Your task to perform on an android device: Search for pizza restaurants on Maps Image 0: 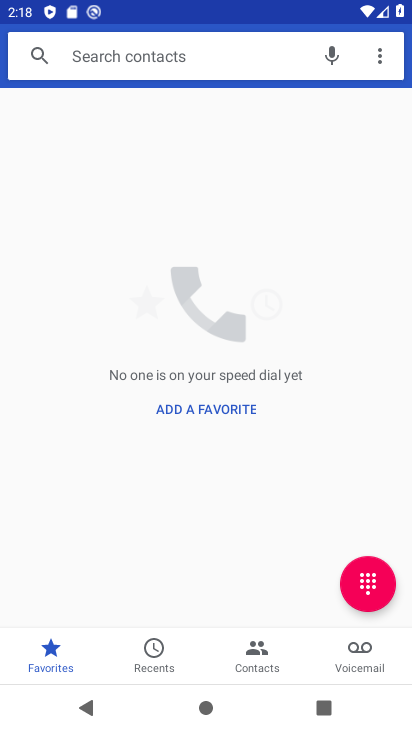
Step 0: press home button
Your task to perform on an android device: Search for pizza restaurants on Maps Image 1: 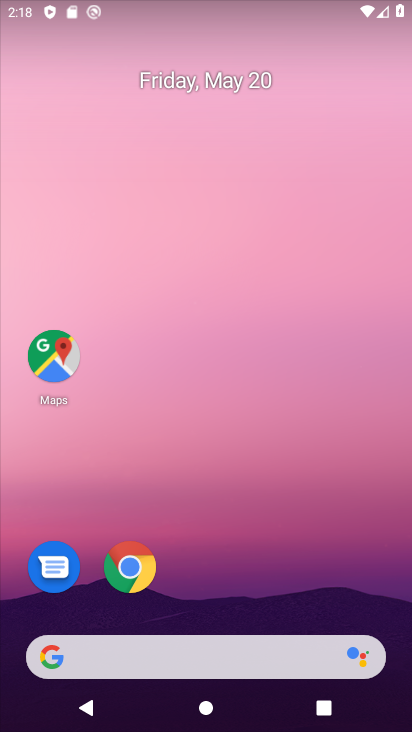
Step 1: click (65, 349)
Your task to perform on an android device: Search for pizza restaurants on Maps Image 2: 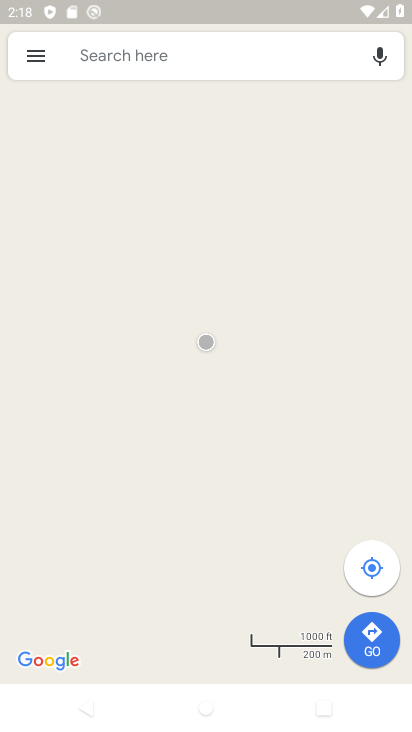
Step 2: click (174, 56)
Your task to perform on an android device: Search for pizza restaurants on Maps Image 3: 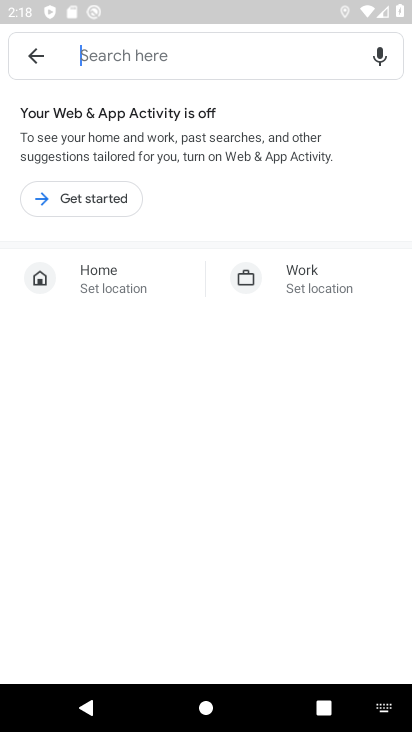
Step 3: click (199, 64)
Your task to perform on an android device: Search for pizza restaurants on Maps Image 4: 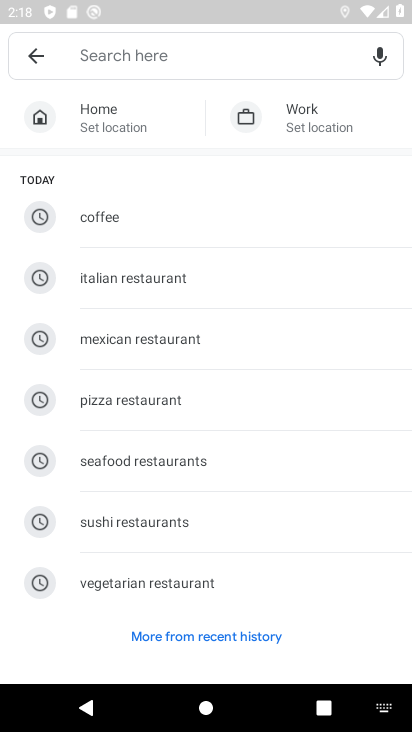
Step 4: click (157, 417)
Your task to perform on an android device: Search for pizza restaurants on Maps Image 5: 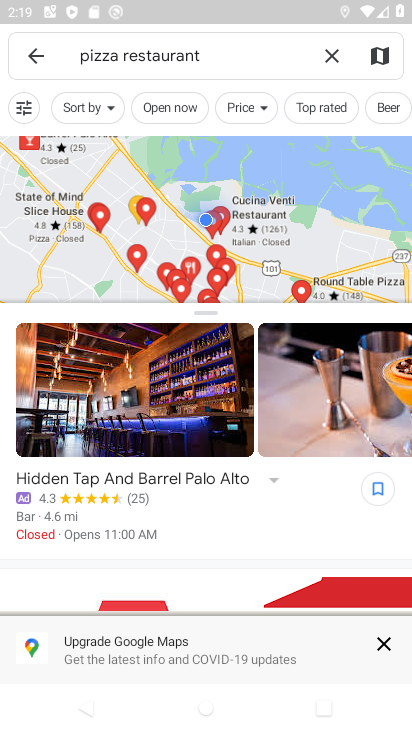
Step 5: task complete